Your task to perform on an android device: Open my contact list Image 0: 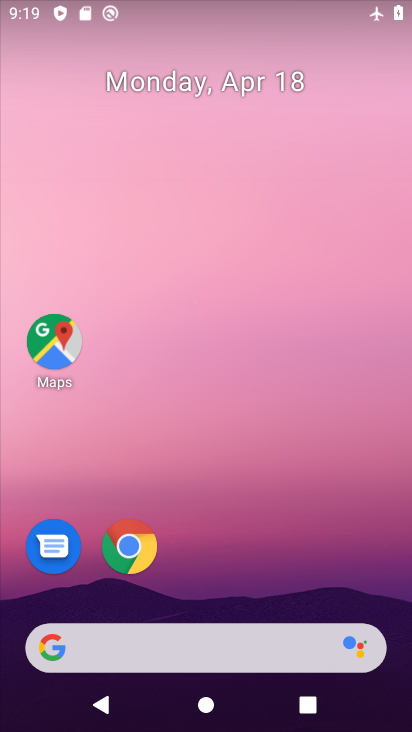
Step 0: drag from (247, 595) to (234, 187)
Your task to perform on an android device: Open my contact list Image 1: 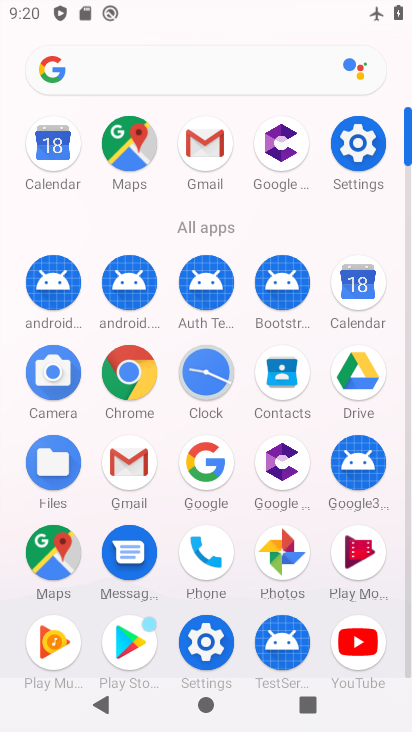
Step 1: click (296, 390)
Your task to perform on an android device: Open my contact list Image 2: 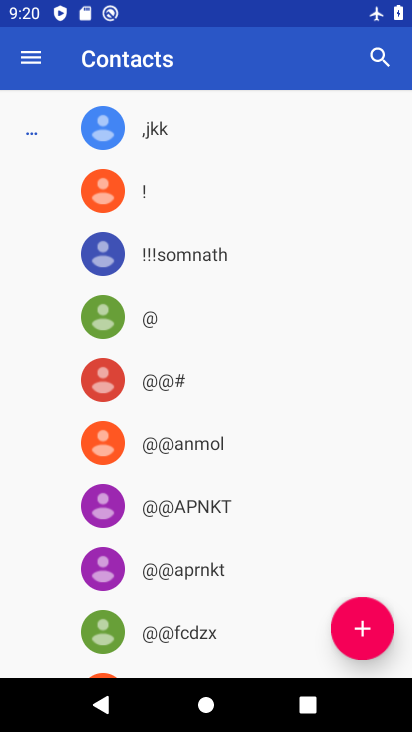
Step 2: task complete